Your task to perform on an android device: Go to ESPN.com Image 0: 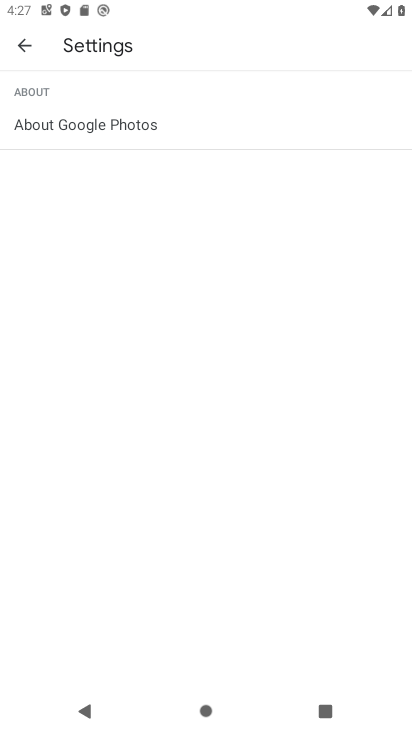
Step 0: press home button
Your task to perform on an android device: Go to ESPN.com Image 1: 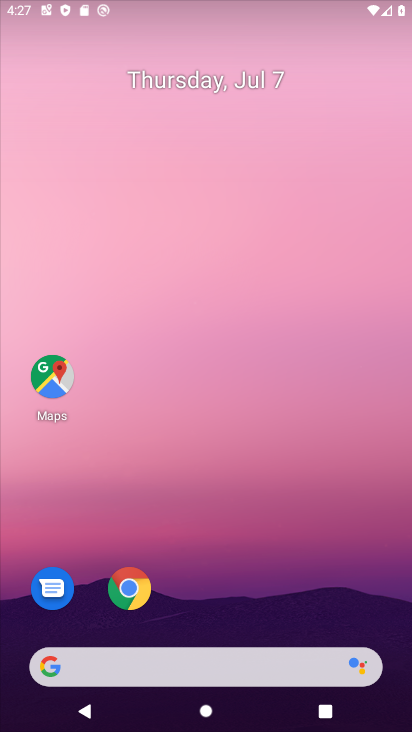
Step 1: drag from (211, 574) to (190, 161)
Your task to perform on an android device: Go to ESPN.com Image 2: 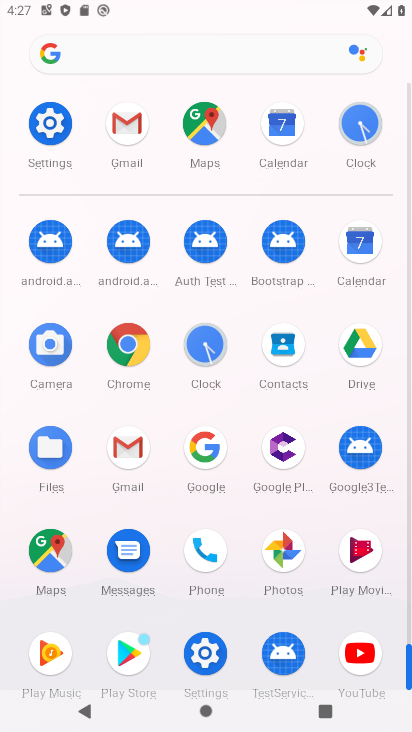
Step 2: click (138, 340)
Your task to perform on an android device: Go to ESPN.com Image 3: 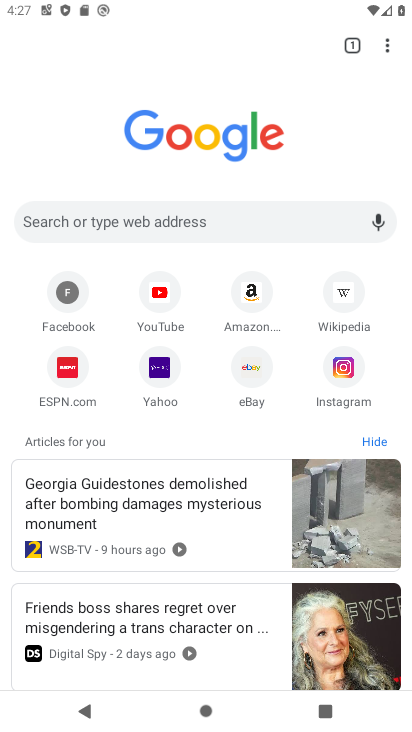
Step 3: click (70, 365)
Your task to perform on an android device: Go to ESPN.com Image 4: 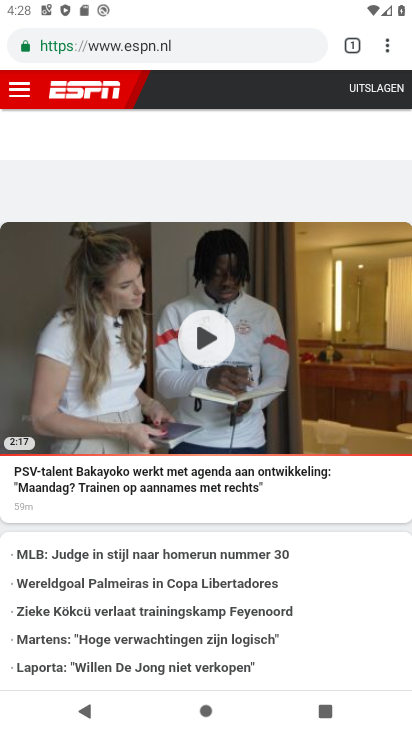
Step 4: task complete